Your task to perform on an android device: manage bookmarks in the chrome app Image 0: 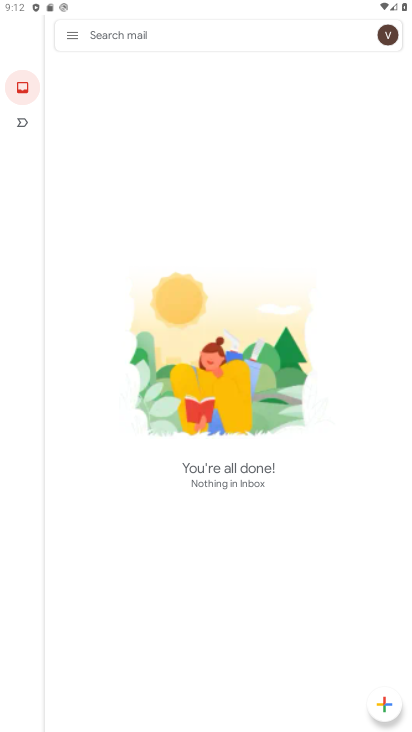
Step 0: press home button
Your task to perform on an android device: manage bookmarks in the chrome app Image 1: 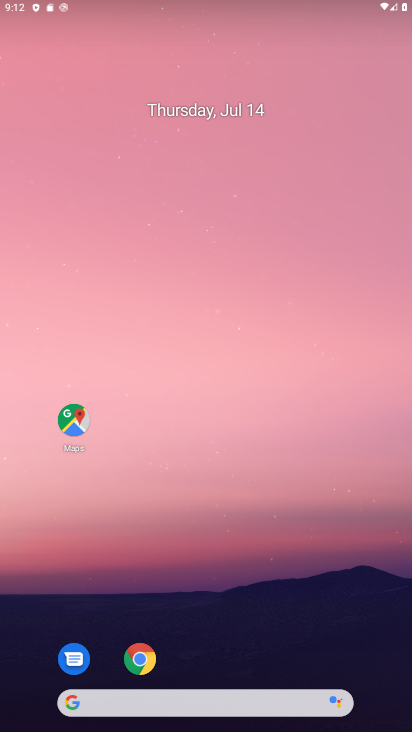
Step 1: drag from (303, 646) to (397, 151)
Your task to perform on an android device: manage bookmarks in the chrome app Image 2: 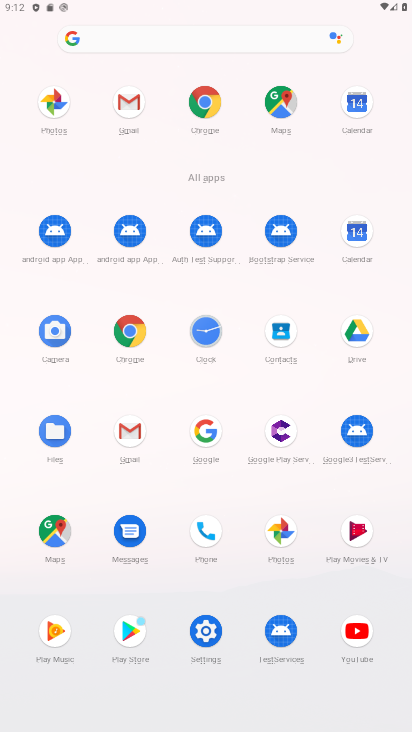
Step 2: click (134, 331)
Your task to perform on an android device: manage bookmarks in the chrome app Image 3: 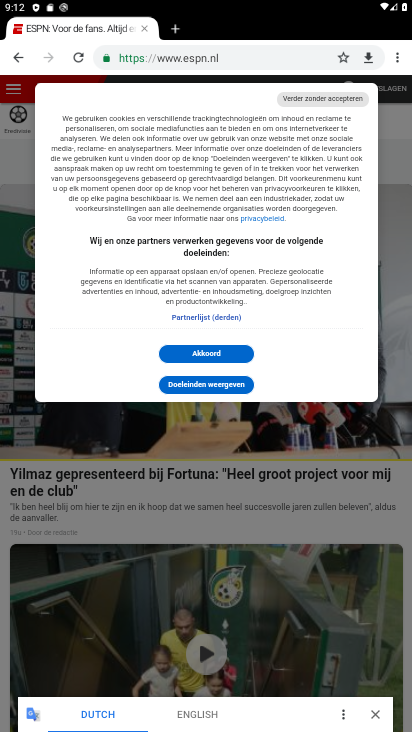
Step 3: click (404, 57)
Your task to perform on an android device: manage bookmarks in the chrome app Image 4: 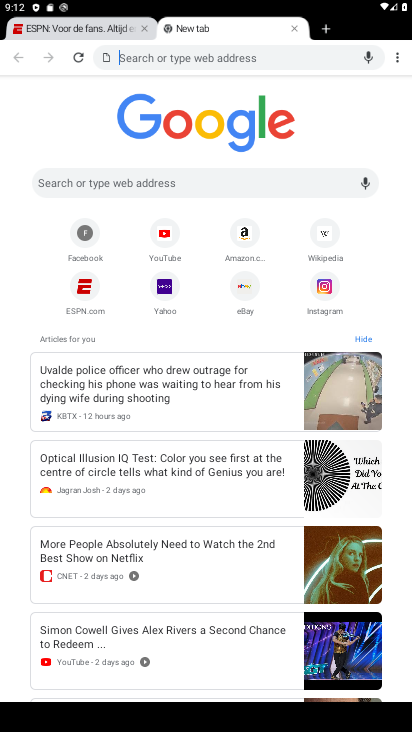
Step 4: task complete